Your task to perform on an android device: Open the phone app and click the voicemail tab. Image 0: 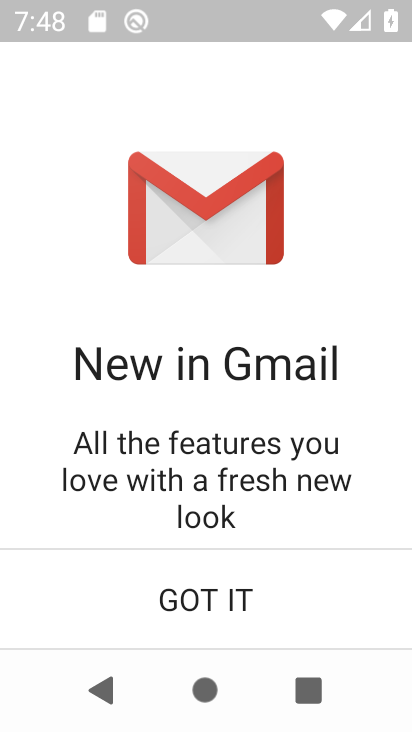
Step 0: click (217, 608)
Your task to perform on an android device: Open the phone app and click the voicemail tab. Image 1: 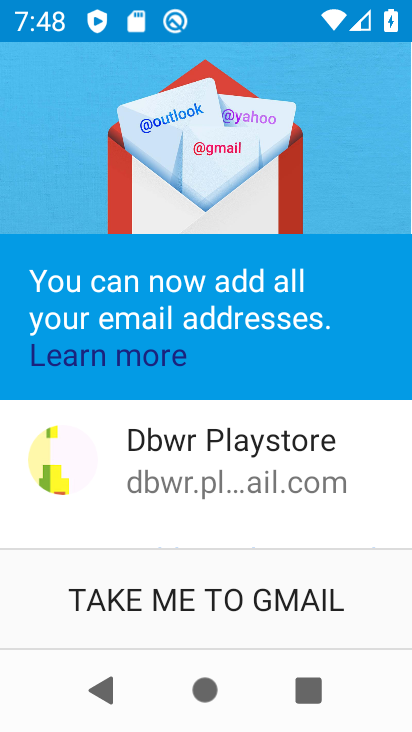
Step 1: press home button
Your task to perform on an android device: Open the phone app and click the voicemail tab. Image 2: 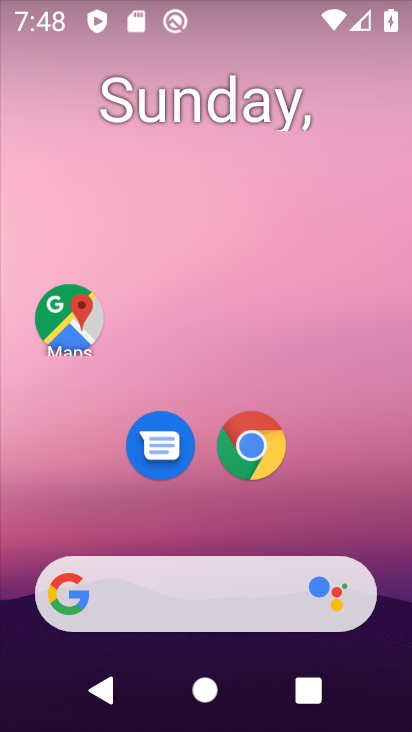
Step 2: drag from (203, 521) to (233, 26)
Your task to perform on an android device: Open the phone app and click the voicemail tab. Image 3: 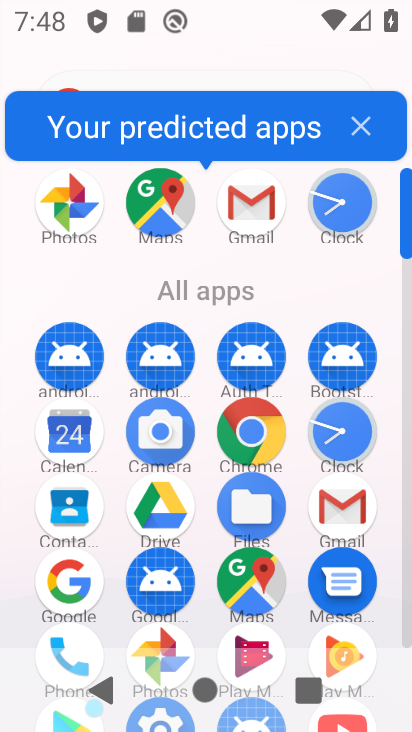
Step 3: click (72, 643)
Your task to perform on an android device: Open the phone app and click the voicemail tab. Image 4: 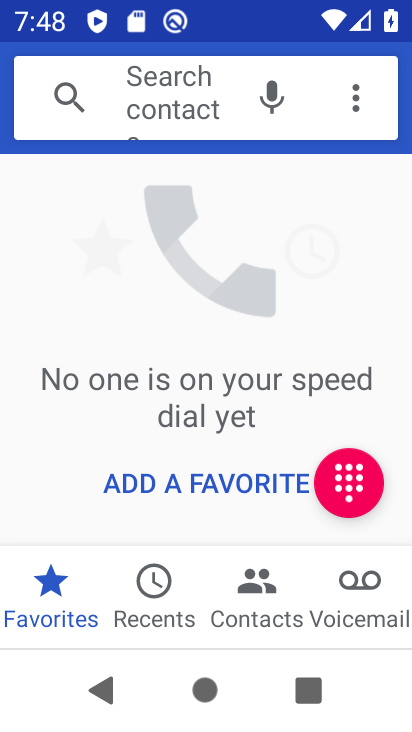
Step 4: click (347, 567)
Your task to perform on an android device: Open the phone app and click the voicemail tab. Image 5: 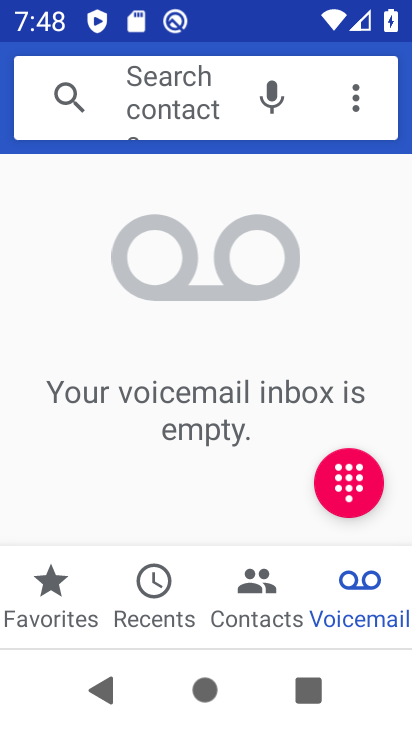
Step 5: task complete